Your task to perform on an android device: toggle improve location accuracy Image 0: 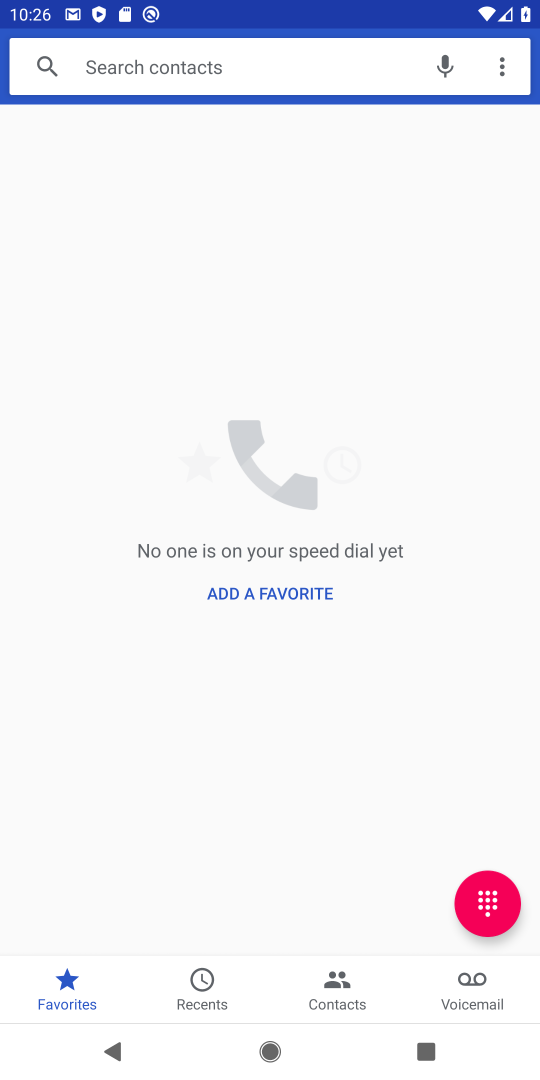
Step 0: press home button
Your task to perform on an android device: toggle improve location accuracy Image 1: 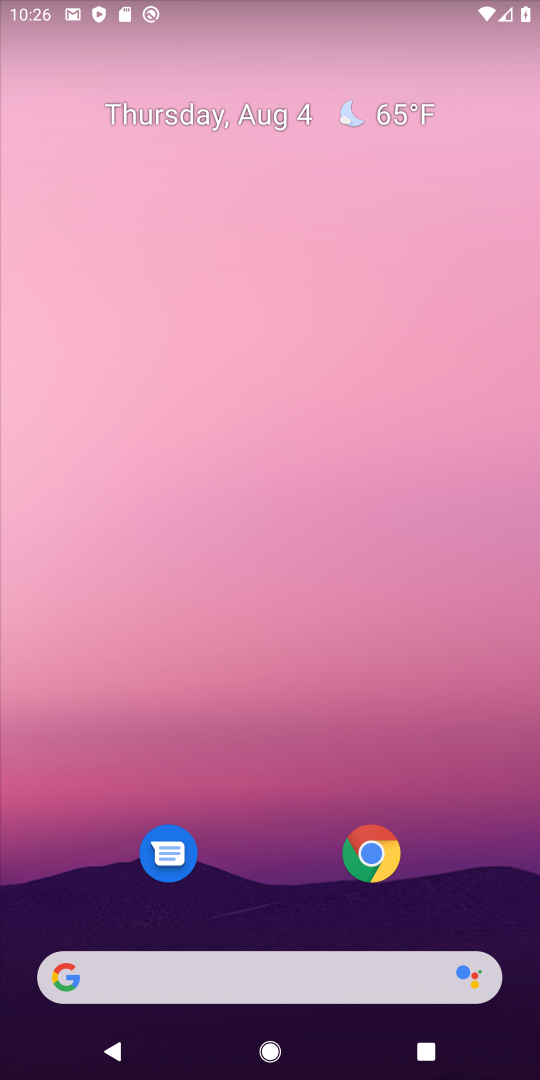
Step 1: drag from (331, 917) to (278, 85)
Your task to perform on an android device: toggle improve location accuracy Image 2: 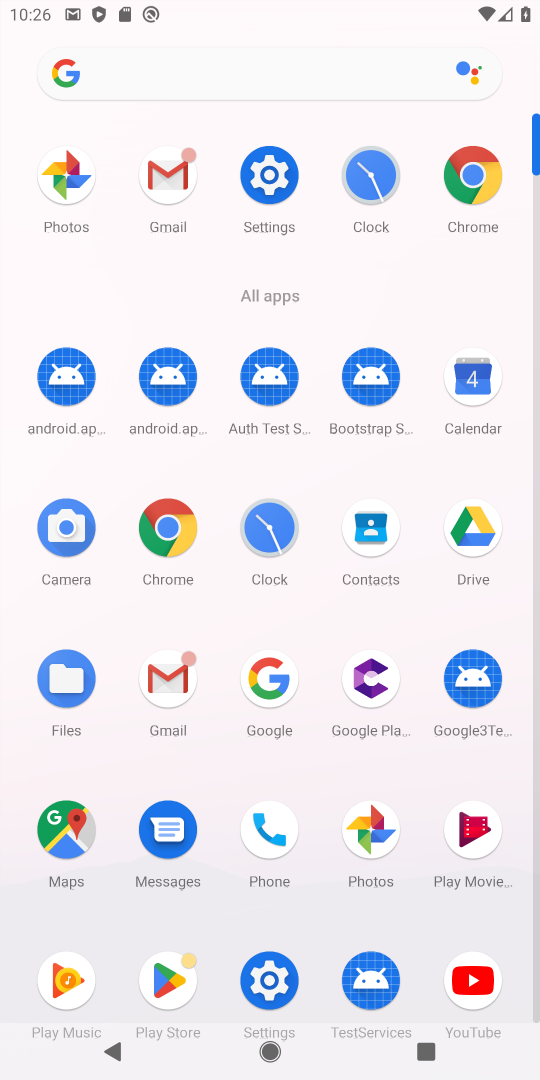
Step 2: click (264, 187)
Your task to perform on an android device: toggle improve location accuracy Image 3: 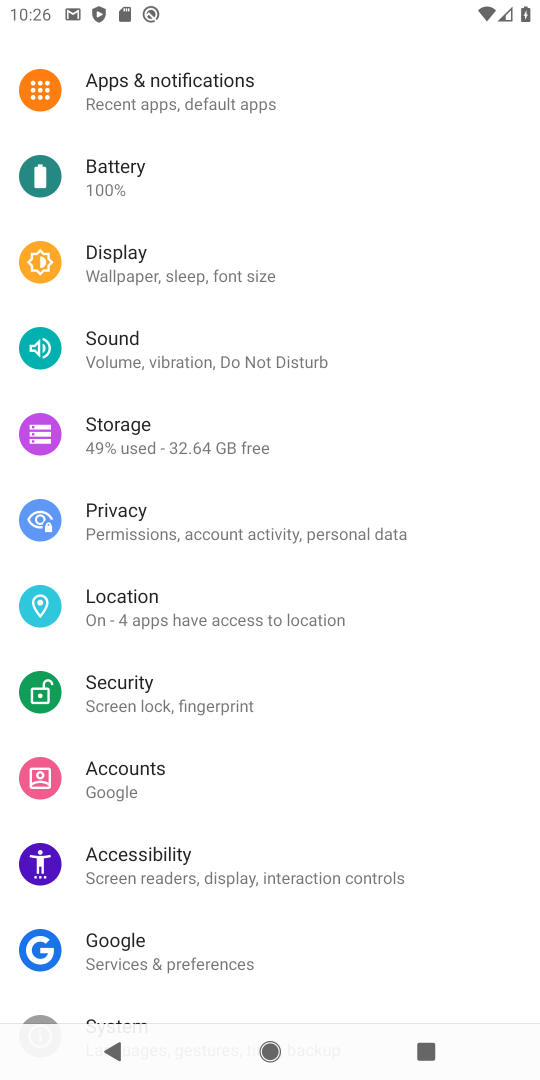
Step 3: drag from (122, 613) to (177, 613)
Your task to perform on an android device: toggle improve location accuracy Image 4: 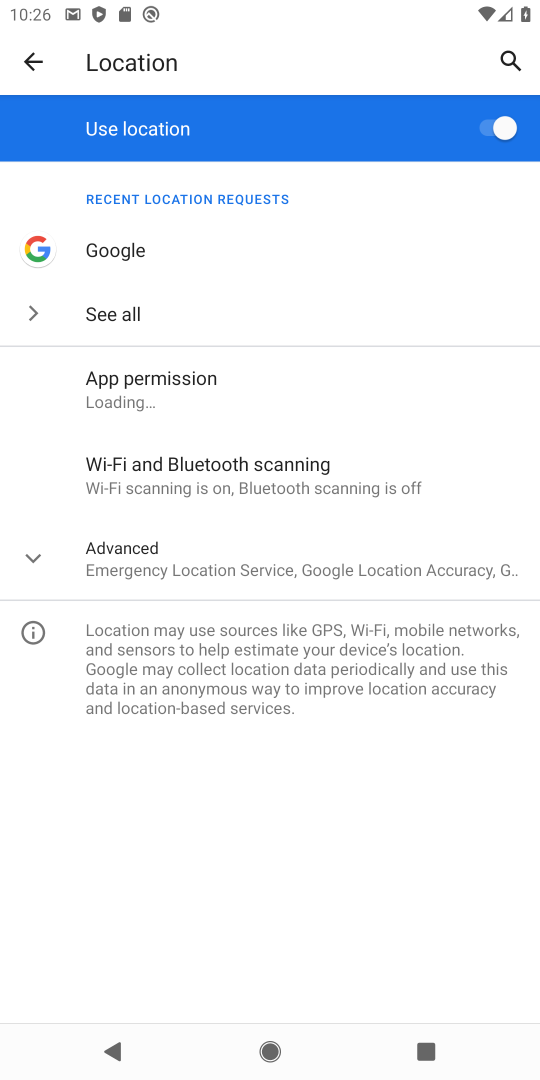
Step 4: click (222, 573)
Your task to perform on an android device: toggle improve location accuracy Image 5: 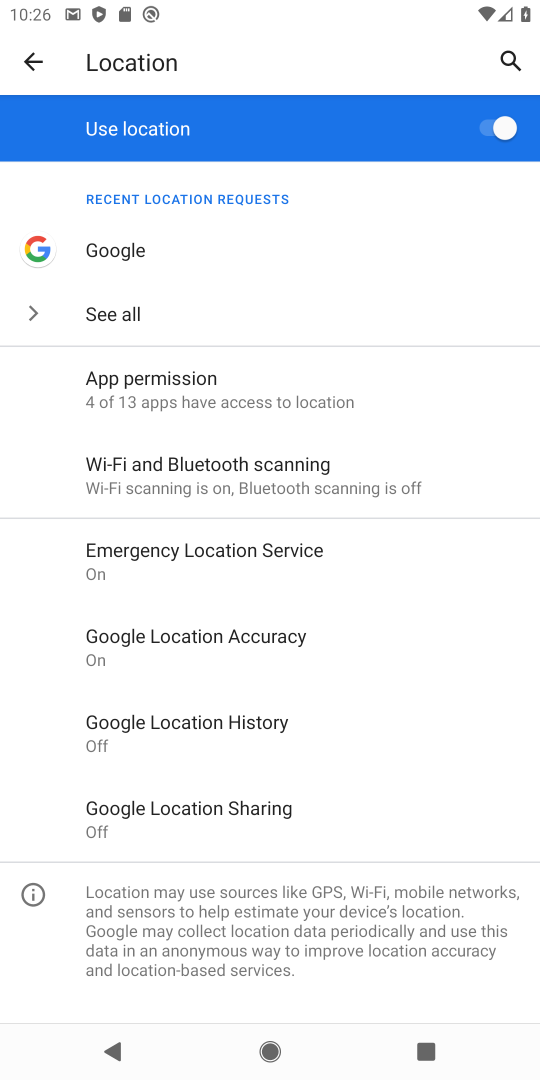
Step 5: click (235, 624)
Your task to perform on an android device: toggle improve location accuracy Image 6: 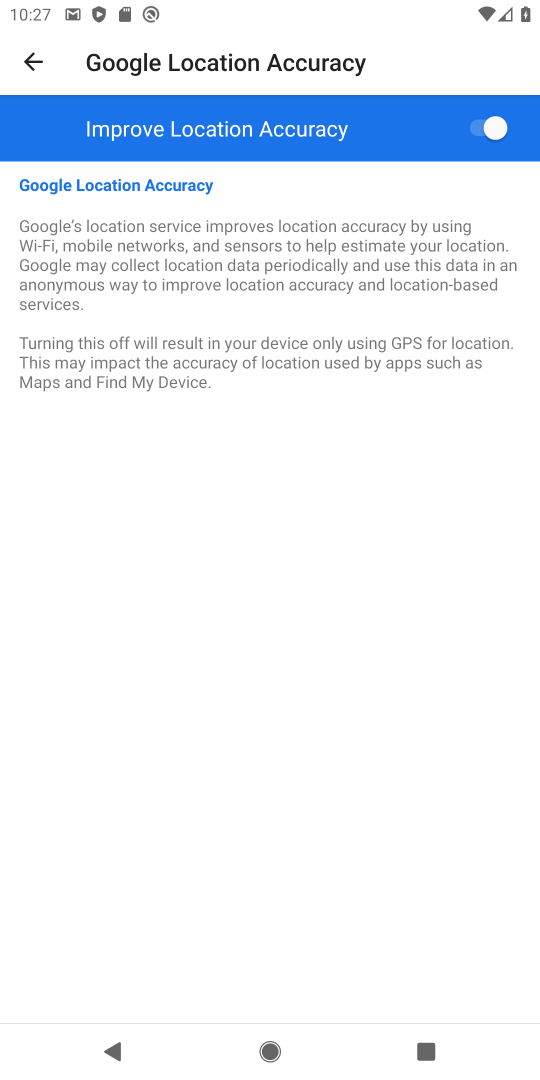
Step 6: click (472, 130)
Your task to perform on an android device: toggle improve location accuracy Image 7: 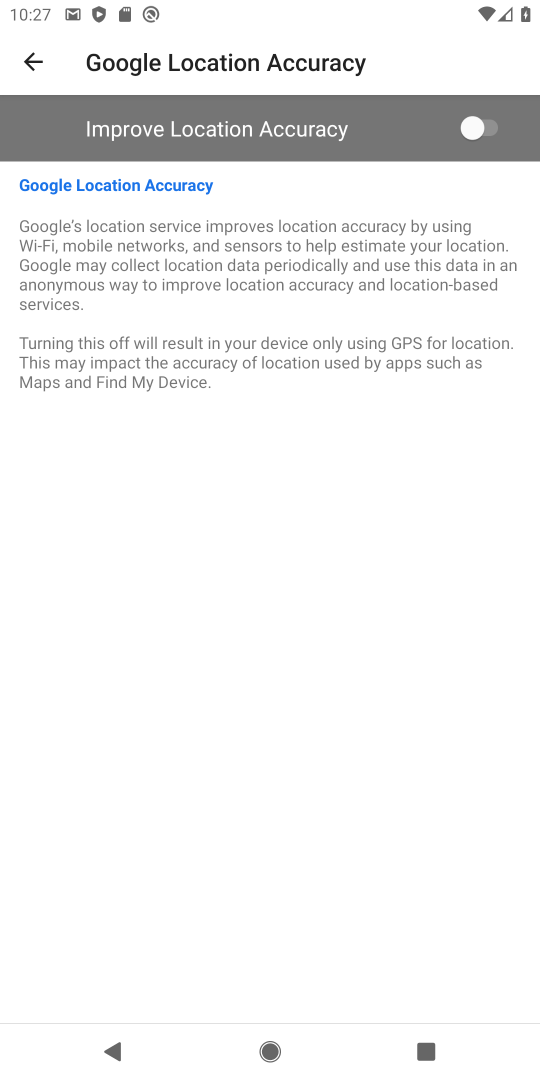
Step 7: task complete